Your task to perform on an android device: toggle sleep mode Image 0: 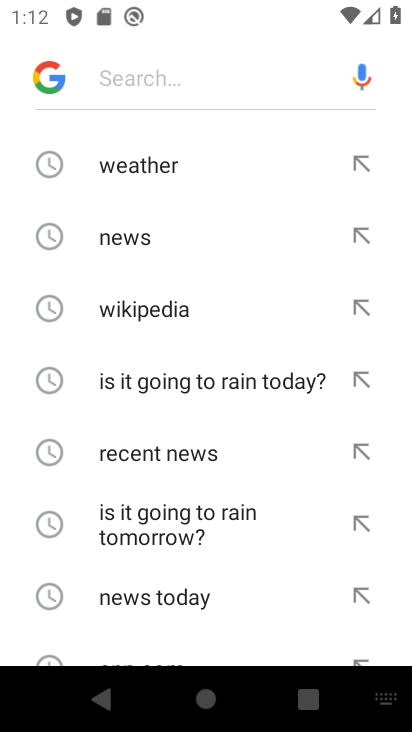
Step 0: press back button
Your task to perform on an android device: toggle sleep mode Image 1: 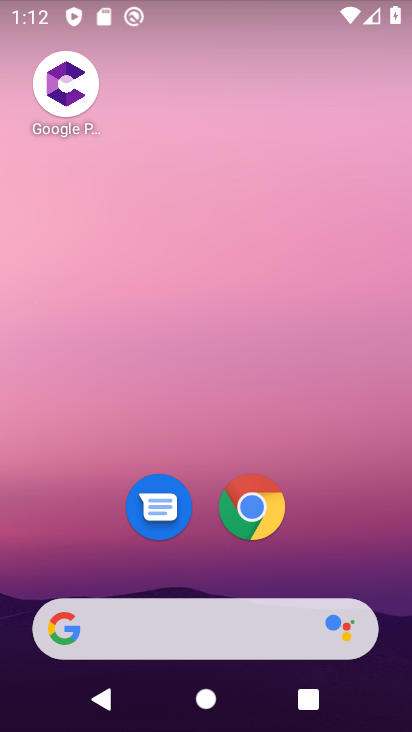
Step 1: drag from (410, 582) to (263, 3)
Your task to perform on an android device: toggle sleep mode Image 2: 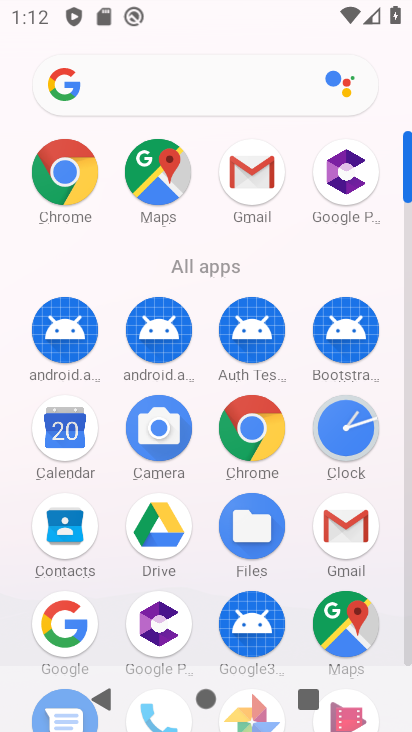
Step 2: click (408, 661)
Your task to perform on an android device: toggle sleep mode Image 3: 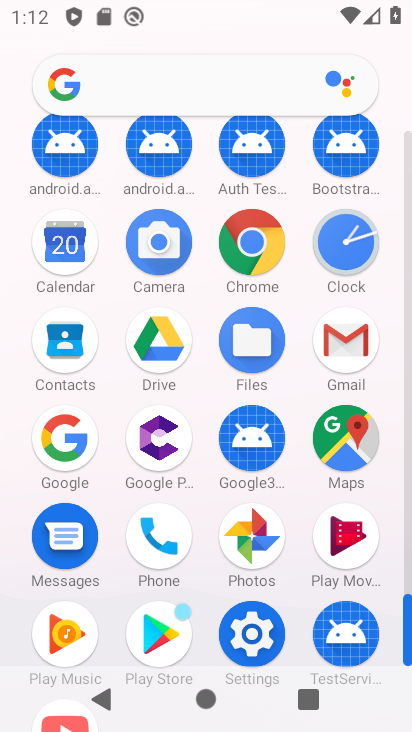
Step 3: click (242, 629)
Your task to perform on an android device: toggle sleep mode Image 4: 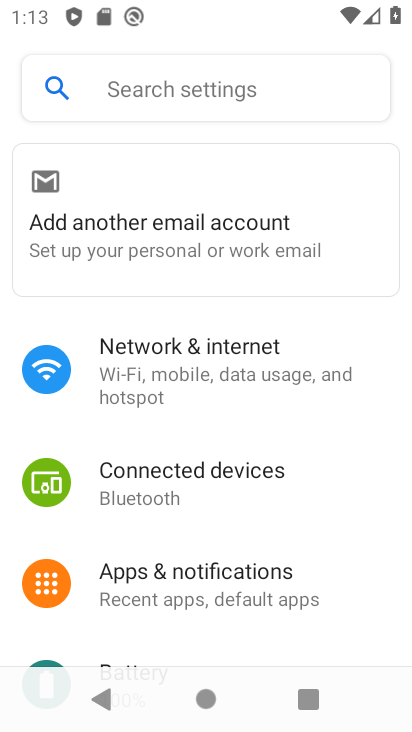
Step 4: drag from (242, 629) to (271, 234)
Your task to perform on an android device: toggle sleep mode Image 5: 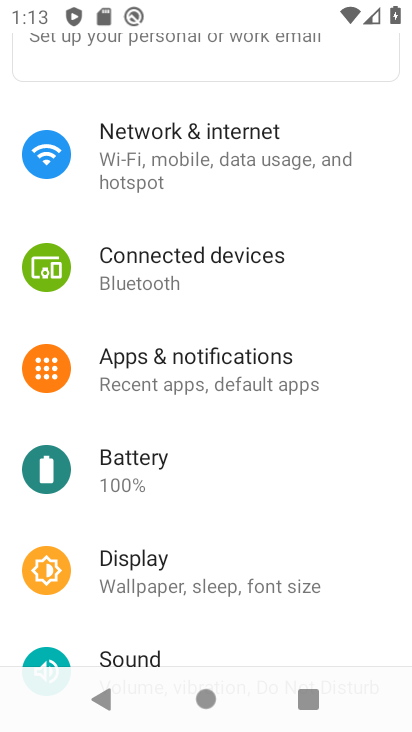
Step 5: click (255, 580)
Your task to perform on an android device: toggle sleep mode Image 6: 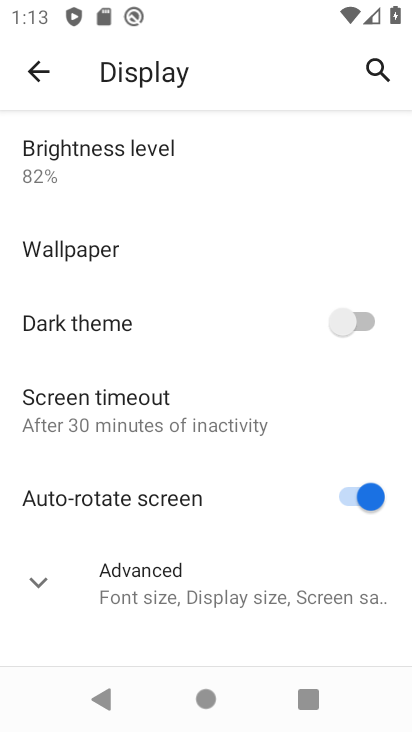
Step 6: click (256, 593)
Your task to perform on an android device: toggle sleep mode Image 7: 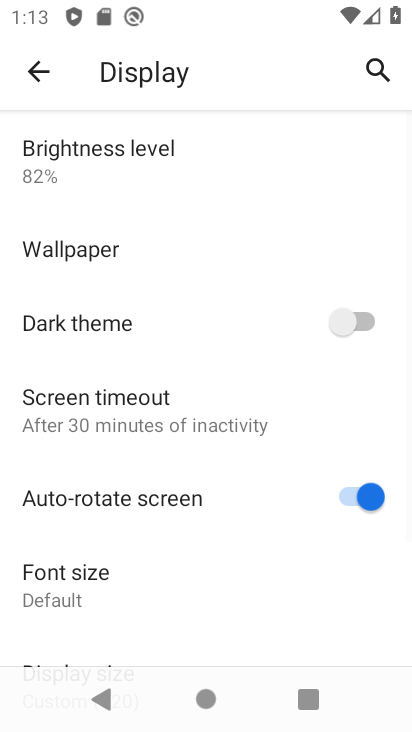
Step 7: task complete